Your task to perform on an android device: Open Google Maps and go to "Timeline" Image 0: 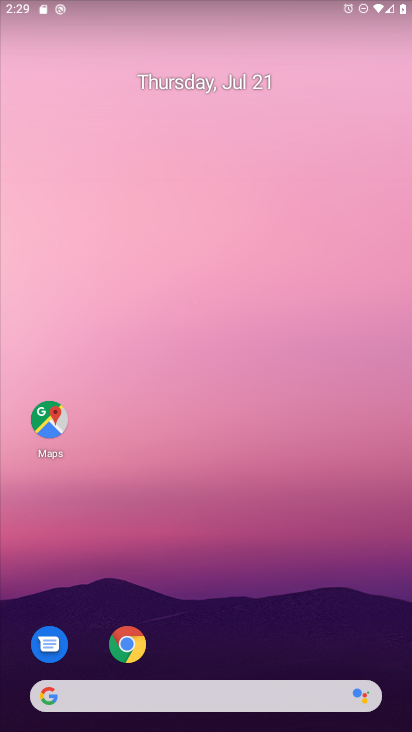
Step 0: drag from (211, 682) to (275, 261)
Your task to perform on an android device: Open Google Maps and go to "Timeline" Image 1: 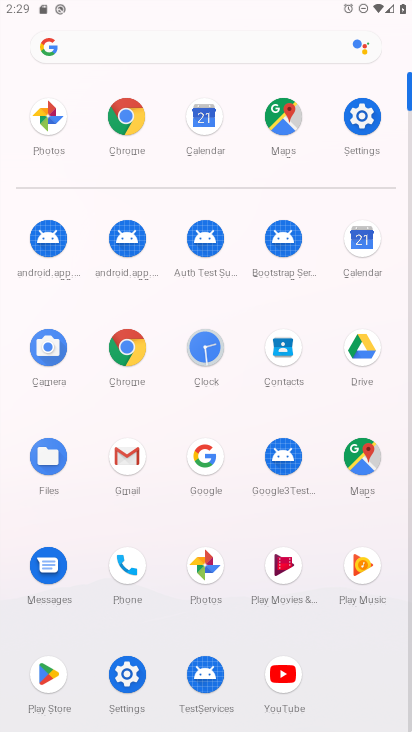
Step 1: click (377, 467)
Your task to perform on an android device: Open Google Maps and go to "Timeline" Image 2: 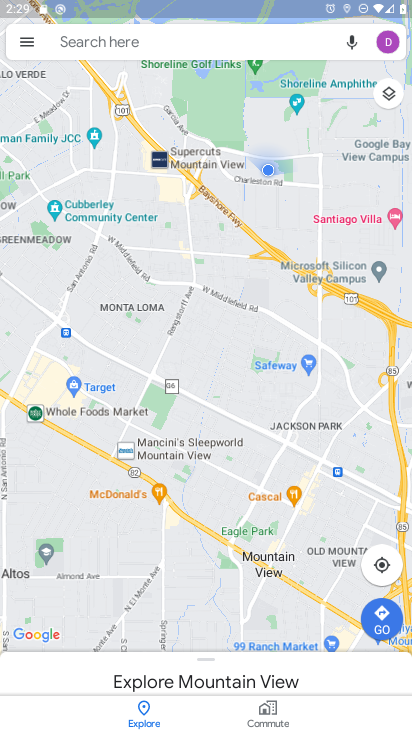
Step 2: click (33, 36)
Your task to perform on an android device: Open Google Maps and go to "Timeline" Image 3: 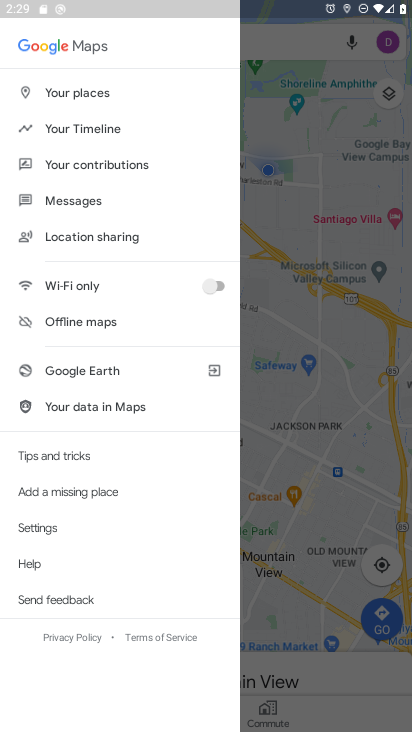
Step 3: click (60, 134)
Your task to perform on an android device: Open Google Maps and go to "Timeline" Image 4: 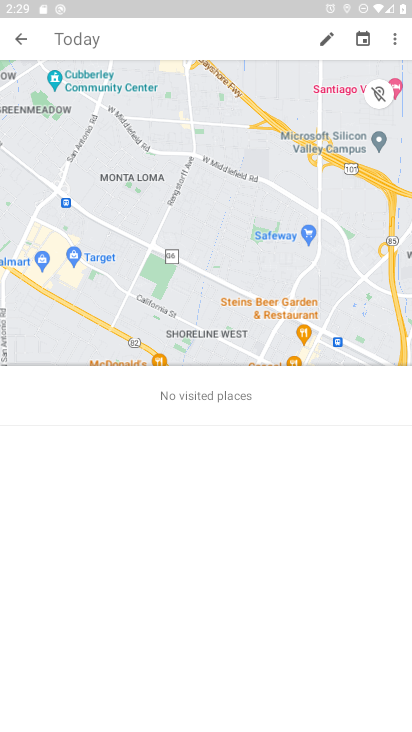
Step 4: task complete